Your task to perform on an android device: move an email to a new category in the gmail app Image 0: 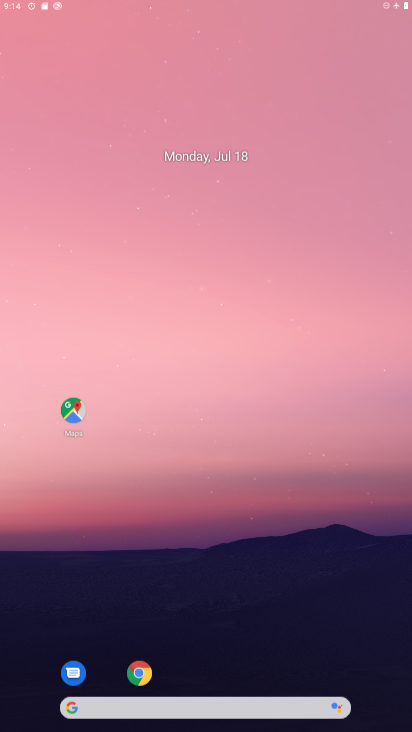
Step 0: press home button
Your task to perform on an android device: move an email to a new category in the gmail app Image 1: 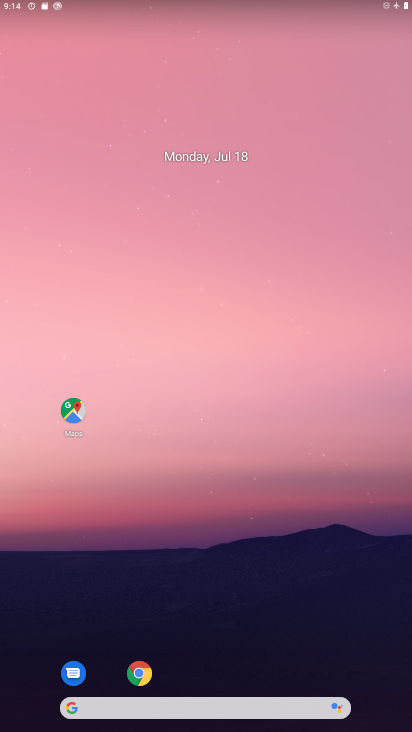
Step 1: drag from (248, 654) to (186, 210)
Your task to perform on an android device: move an email to a new category in the gmail app Image 2: 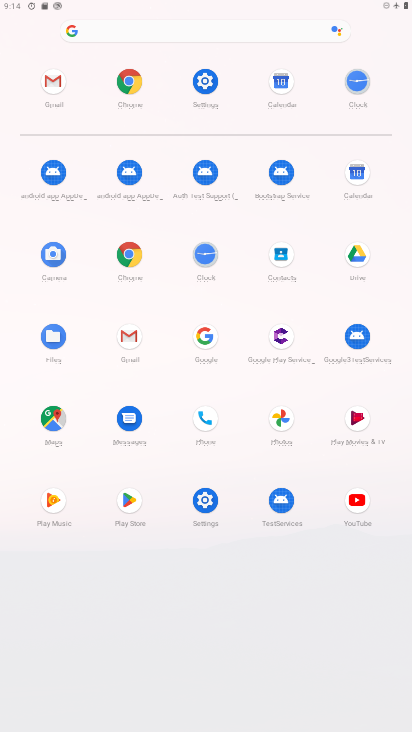
Step 2: click (49, 82)
Your task to perform on an android device: move an email to a new category in the gmail app Image 3: 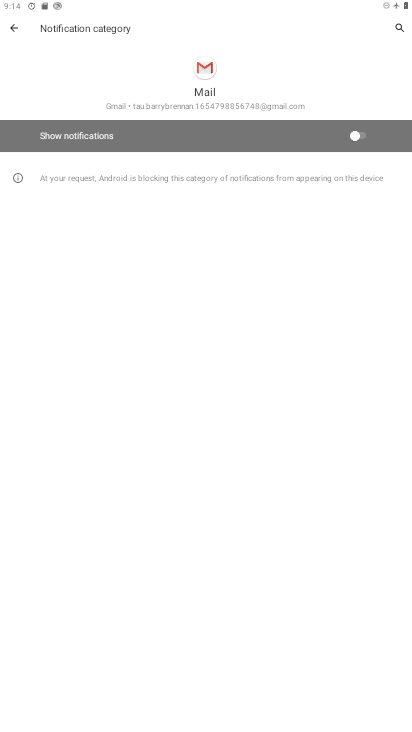
Step 3: click (9, 25)
Your task to perform on an android device: move an email to a new category in the gmail app Image 4: 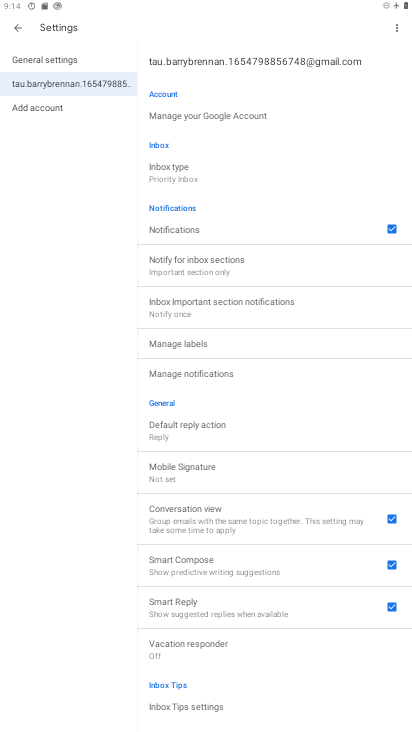
Step 4: click (17, 32)
Your task to perform on an android device: move an email to a new category in the gmail app Image 5: 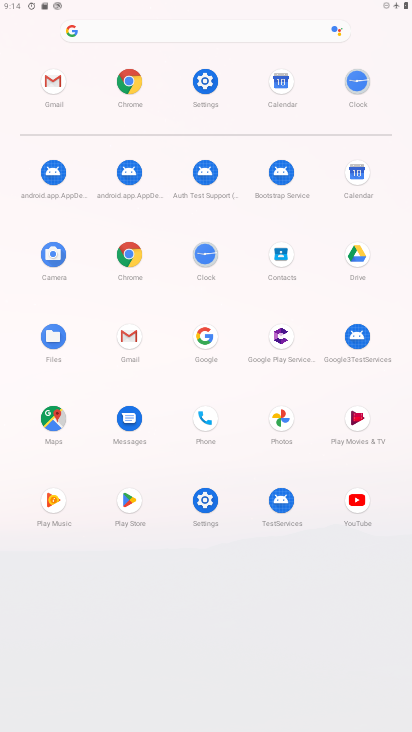
Step 5: click (49, 84)
Your task to perform on an android device: move an email to a new category in the gmail app Image 6: 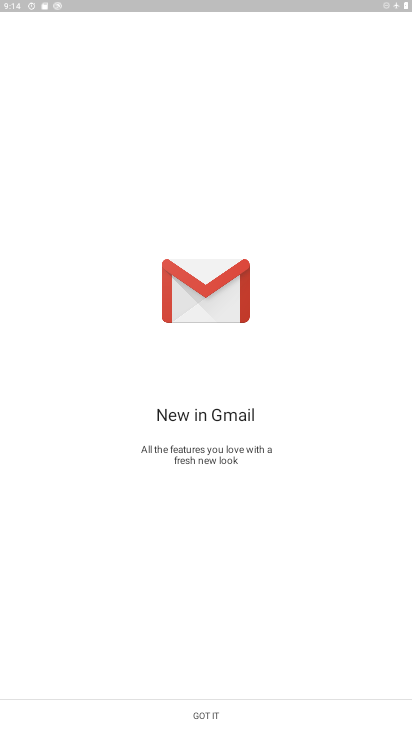
Step 6: click (215, 716)
Your task to perform on an android device: move an email to a new category in the gmail app Image 7: 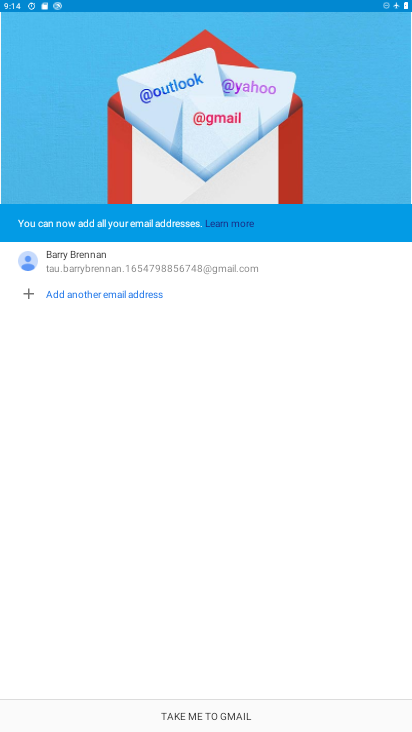
Step 7: click (211, 716)
Your task to perform on an android device: move an email to a new category in the gmail app Image 8: 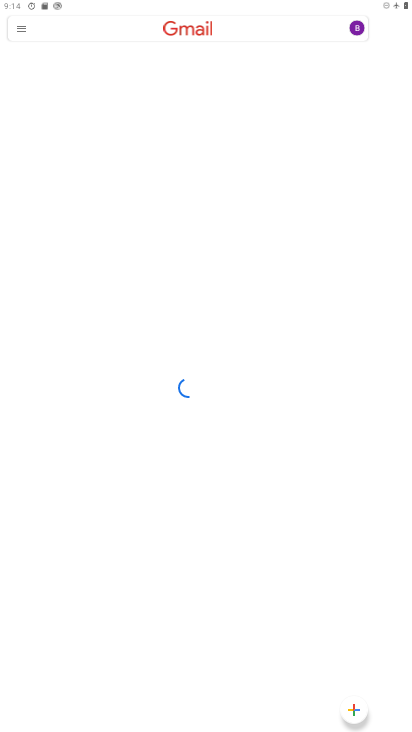
Step 8: click (25, 18)
Your task to perform on an android device: move an email to a new category in the gmail app Image 9: 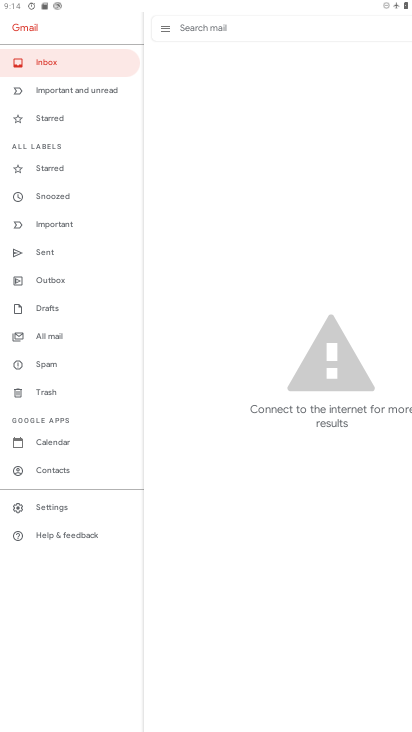
Step 9: click (61, 330)
Your task to perform on an android device: move an email to a new category in the gmail app Image 10: 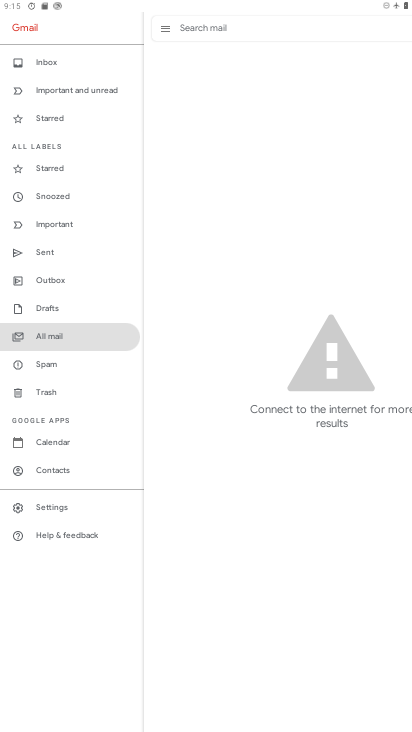
Step 10: press home button
Your task to perform on an android device: move an email to a new category in the gmail app Image 11: 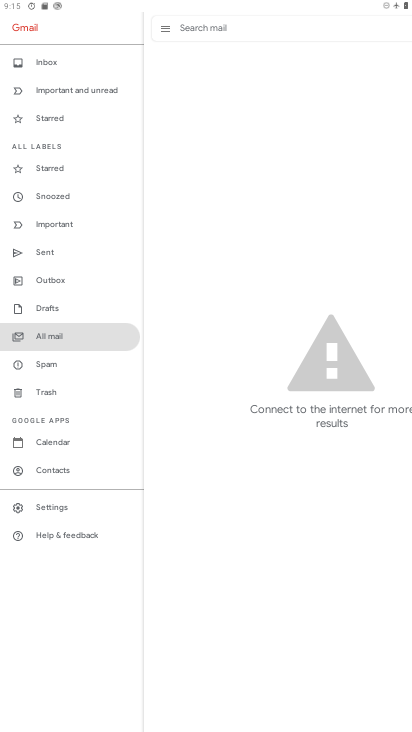
Step 11: press home button
Your task to perform on an android device: move an email to a new category in the gmail app Image 12: 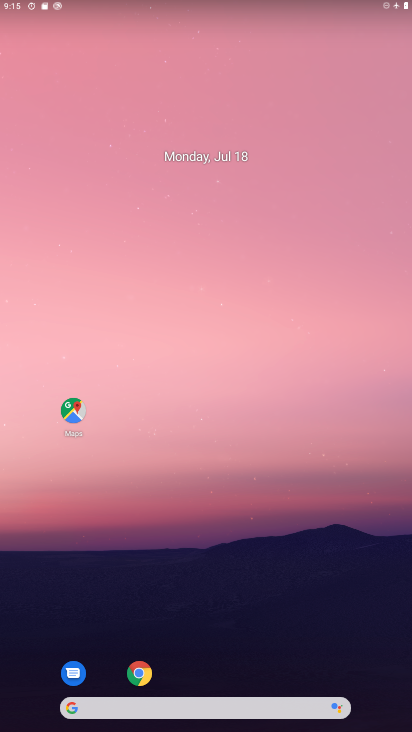
Step 12: drag from (248, 393) to (289, 127)
Your task to perform on an android device: move an email to a new category in the gmail app Image 13: 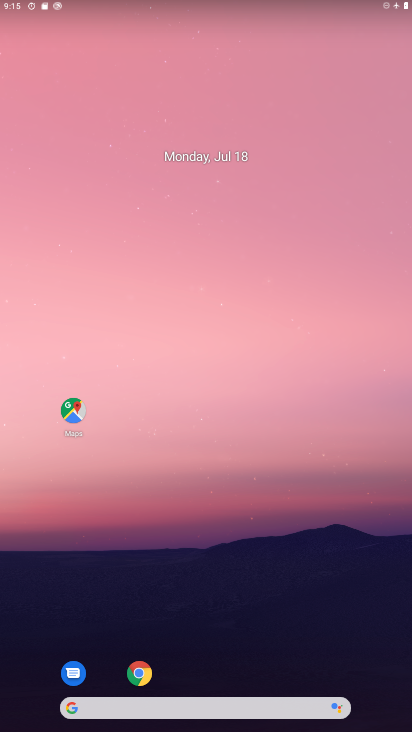
Step 13: drag from (245, 639) to (258, 2)
Your task to perform on an android device: move an email to a new category in the gmail app Image 14: 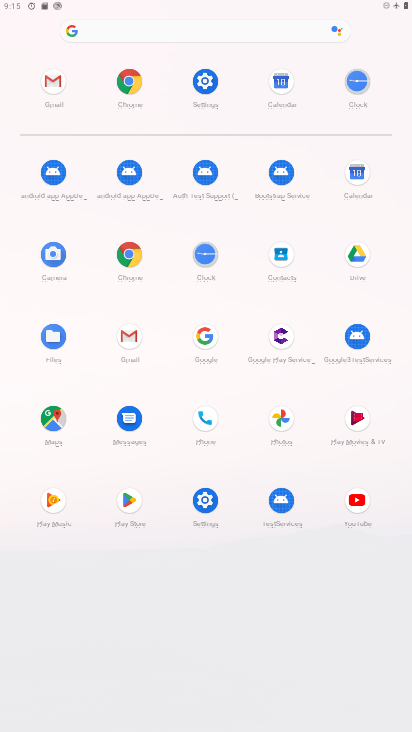
Step 14: click (56, 74)
Your task to perform on an android device: move an email to a new category in the gmail app Image 15: 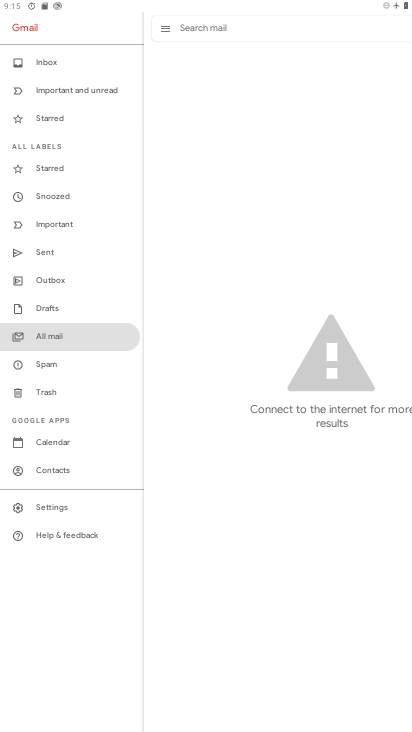
Step 15: click (73, 339)
Your task to perform on an android device: move an email to a new category in the gmail app Image 16: 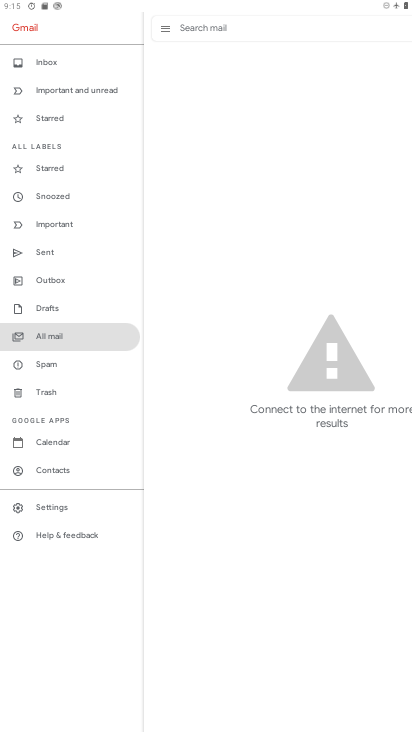
Step 16: task complete